Your task to perform on an android device: open app "Chime – Mobile Banking" (install if not already installed), go to login, and select forgot password Image 0: 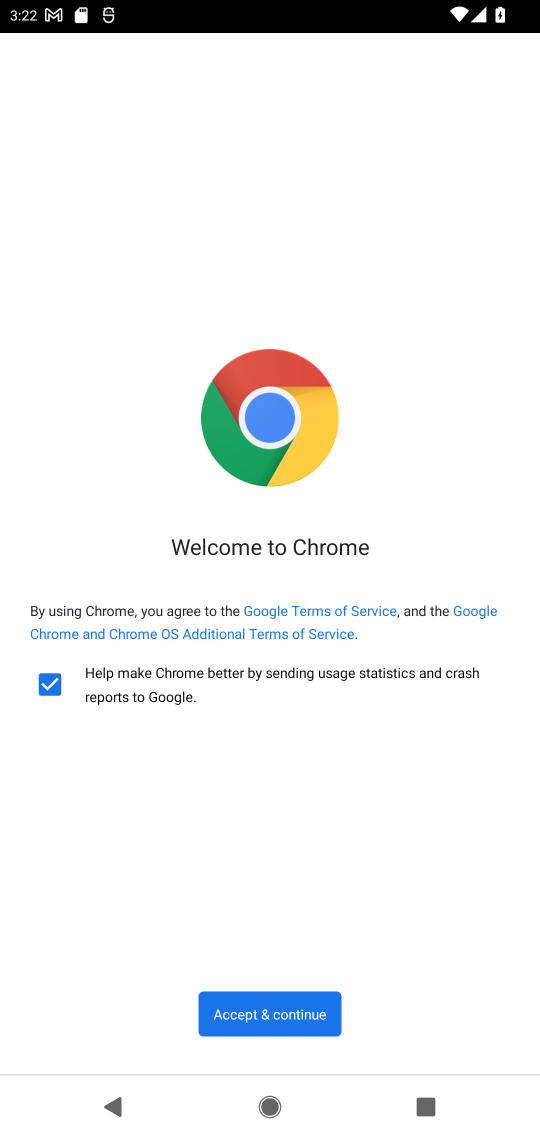
Step 0: press home button
Your task to perform on an android device: open app "Chime – Mobile Banking" (install if not already installed), go to login, and select forgot password Image 1: 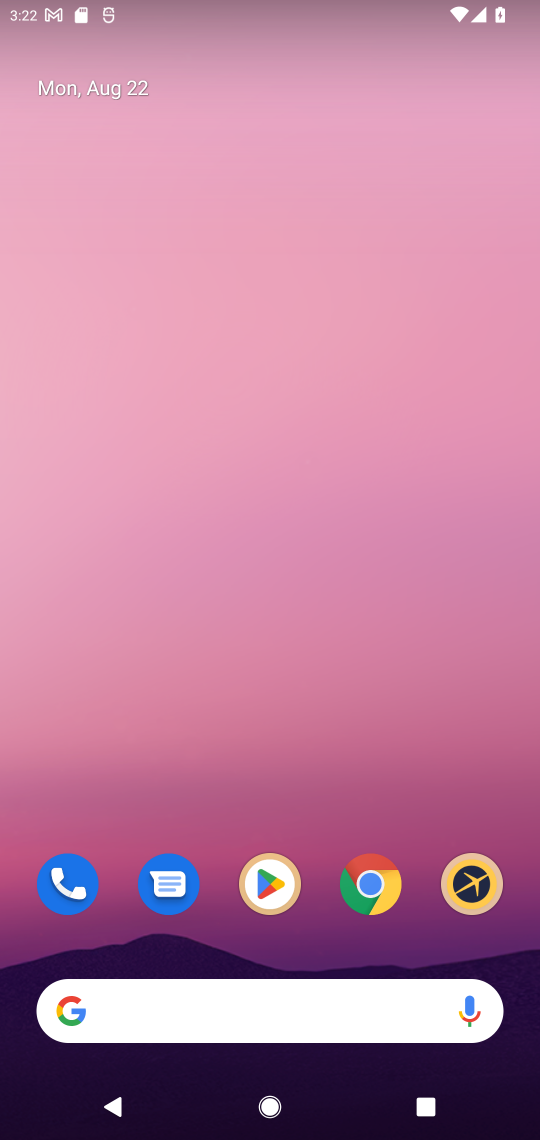
Step 1: click (274, 883)
Your task to perform on an android device: open app "Chime – Mobile Banking" (install if not already installed), go to login, and select forgot password Image 2: 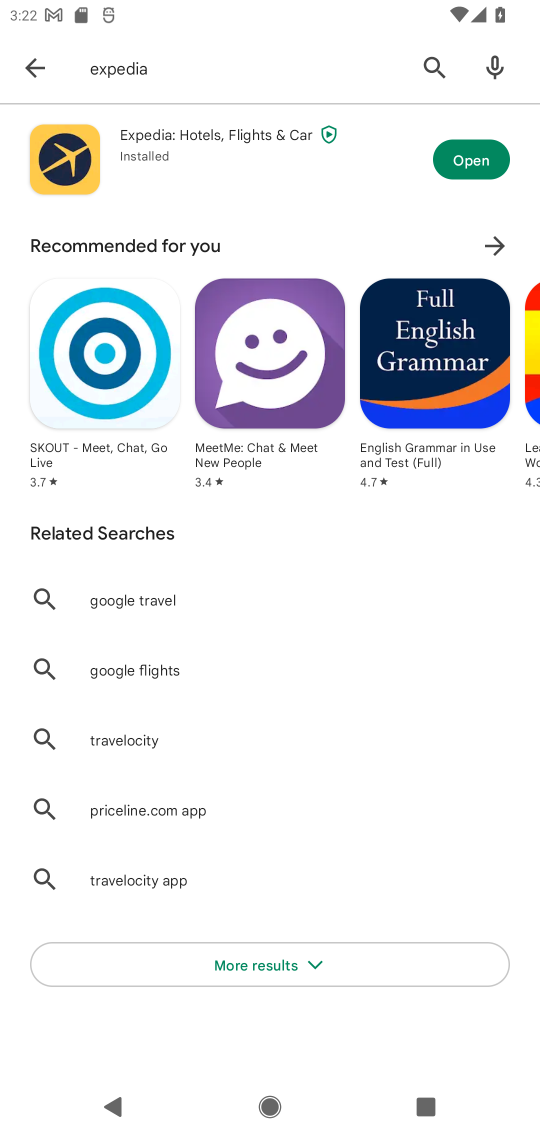
Step 2: click (166, 72)
Your task to perform on an android device: open app "Chime – Mobile Banking" (install if not already installed), go to login, and select forgot password Image 3: 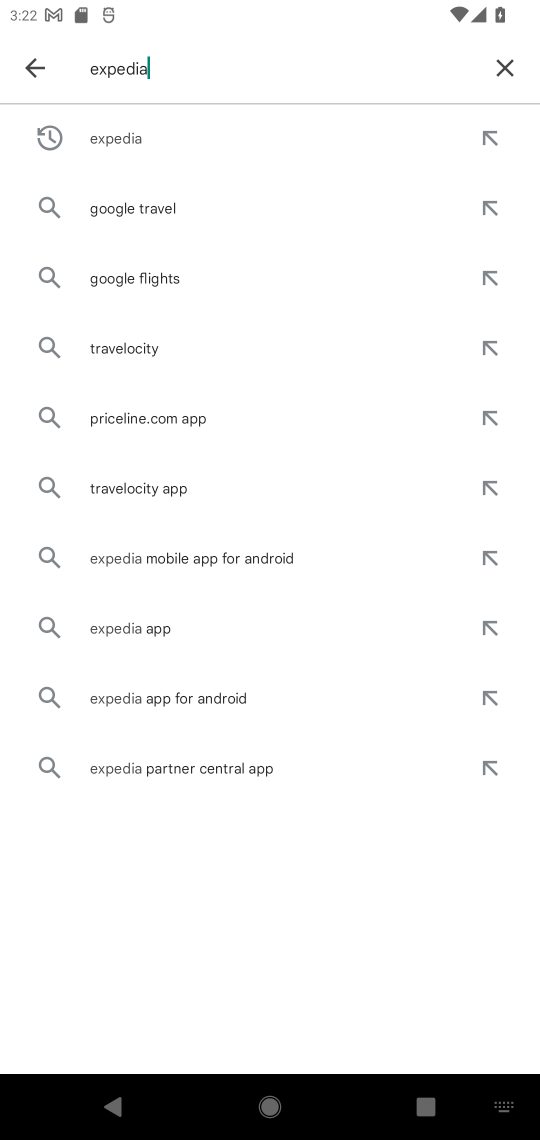
Step 3: click (501, 62)
Your task to perform on an android device: open app "Chime – Mobile Banking" (install if not already installed), go to login, and select forgot password Image 4: 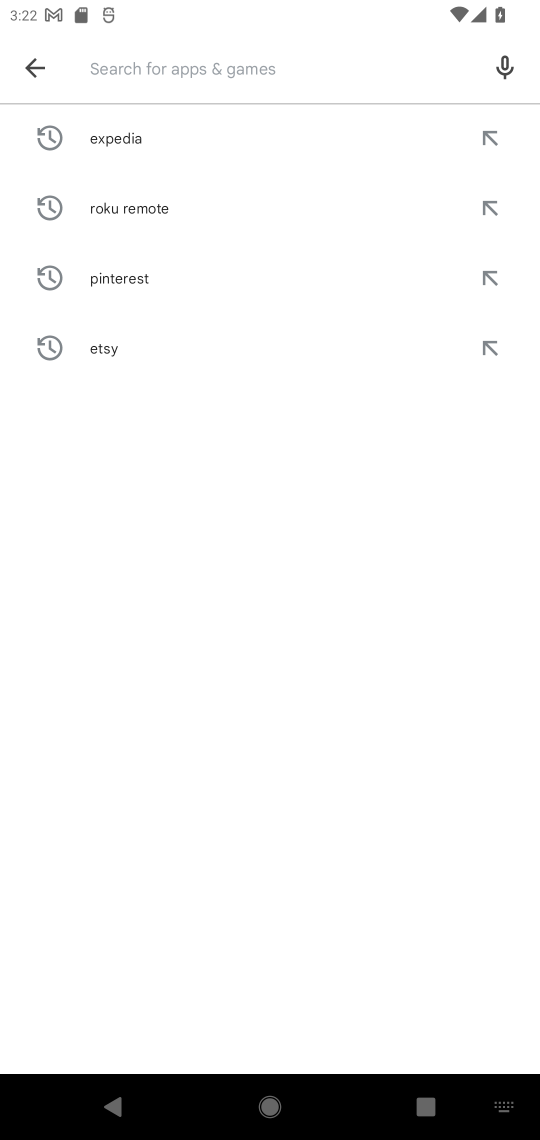
Step 4: type "Chime"
Your task to perform on an android device: open app "Chime – Mobile Banking" (install if not already installed), go to login, and select forgot password Image 5: 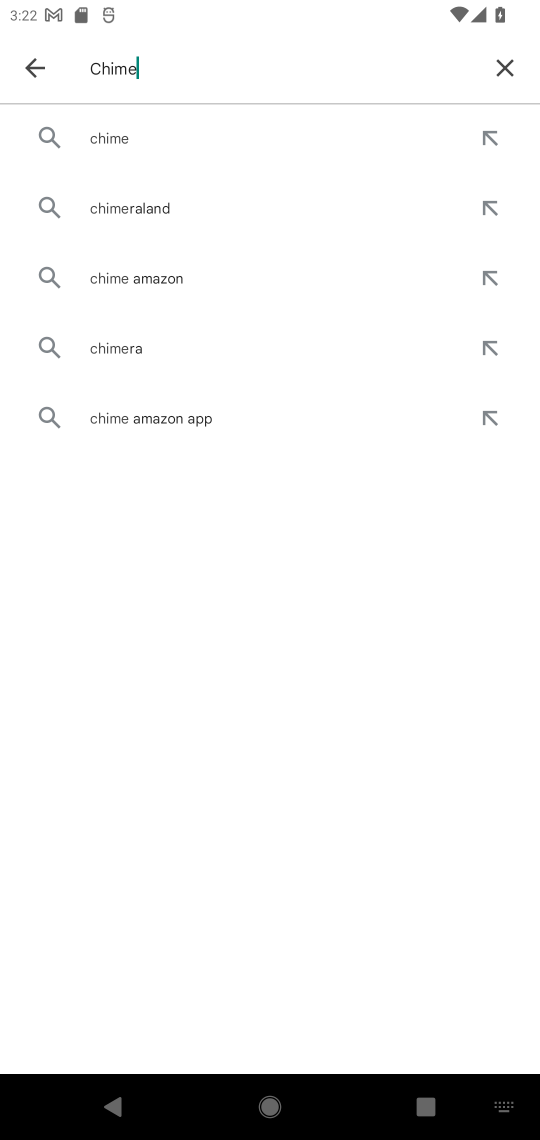
Step 5: click (145, 142)
Your task to perform on an android device: open app "Chime – Mobile Banking" (install if not already installed), go to login, and select forgot password Image 6: 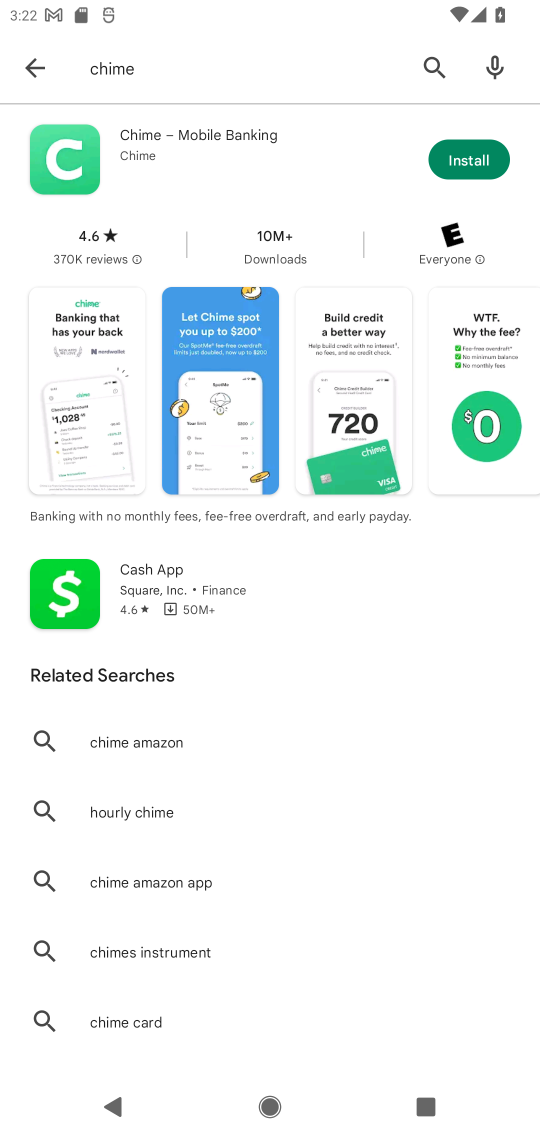
Step 6: click (470, 160)
Your task to perform on an android device: open app "Chime – Mobile Banking" (install if not already installed), go to login, and select forgot password Image 7: 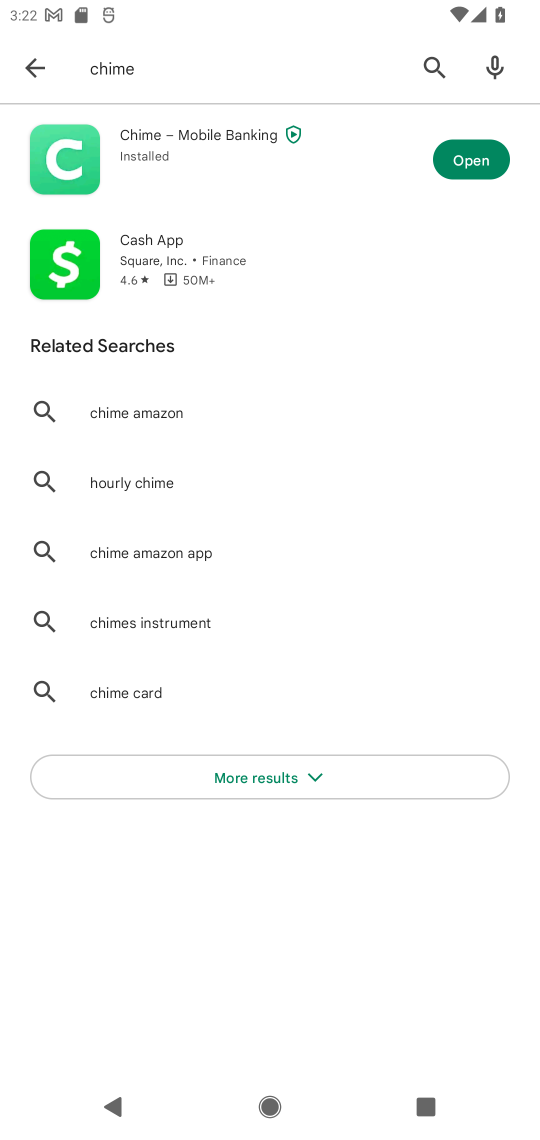
Step 7: click (481, 157)
Your task to perform on an android device: open app "Chime – Mobile Banking" (install if not already installed), go to login, and select forgot password Image 8: 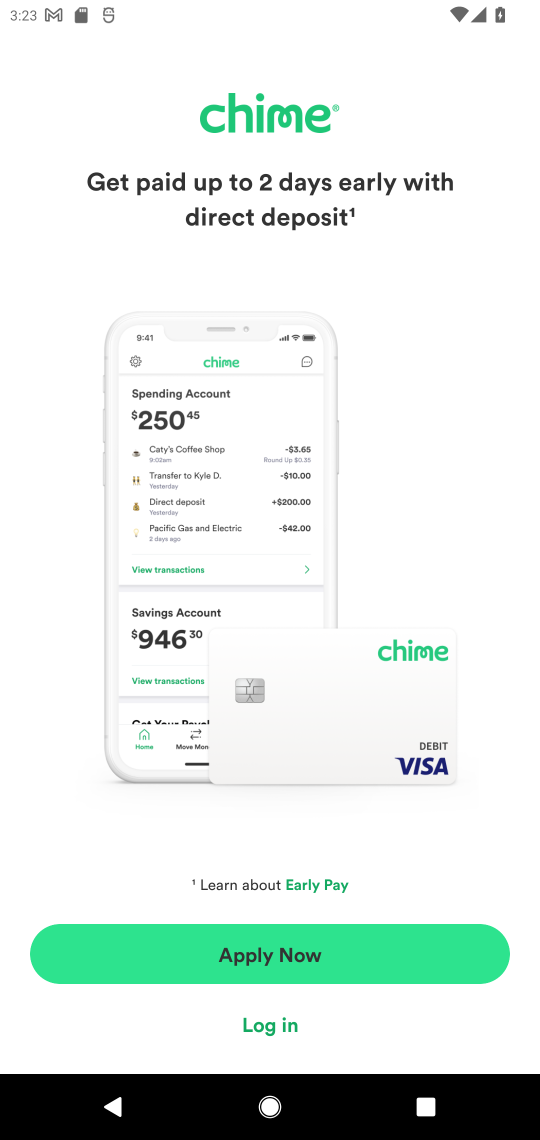
Step 8: click (263, 1009)
Your task to perform on an android device: open app "Chime – Mobile Banking" (install if not already installed), go to login, and select forgot password Image 9: 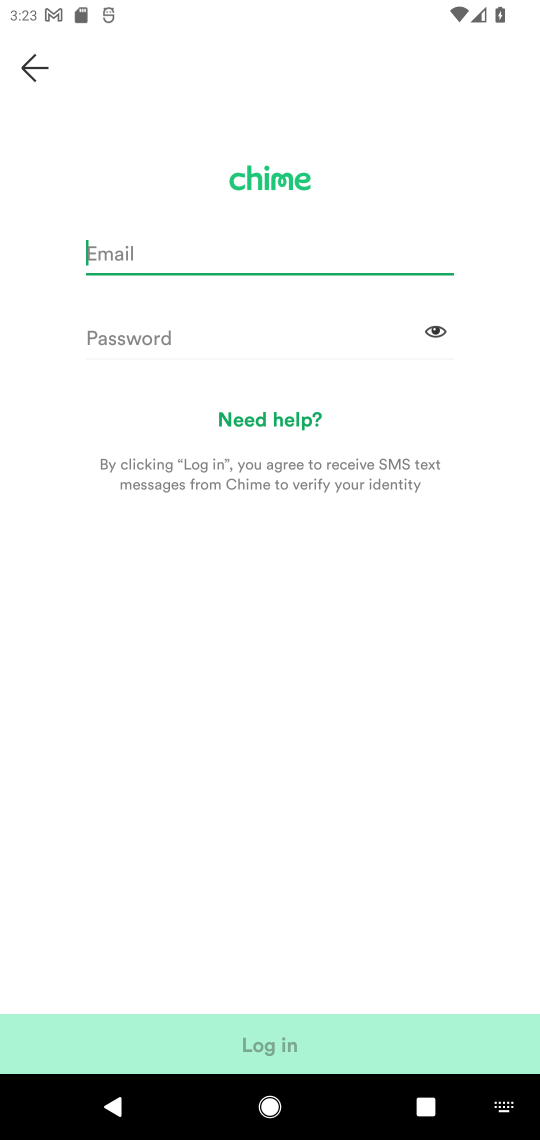
Step 9: click (287, 408)
Your task to perform on an android device: open app "Chime – Mobile Banking" (install if not already installed), go to login, and select forgot password Image 10: 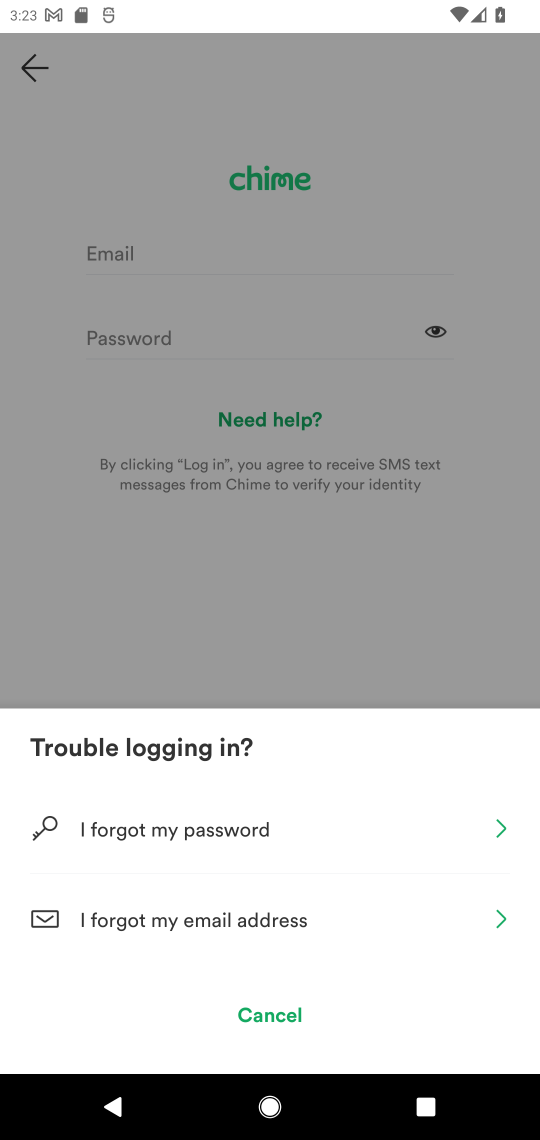
Step 10: click (263, 828)
Your task to perform on an android device: open app "Chime – Mobile Banking" (install if not already installed), go to login, and select forgot password Image 11: 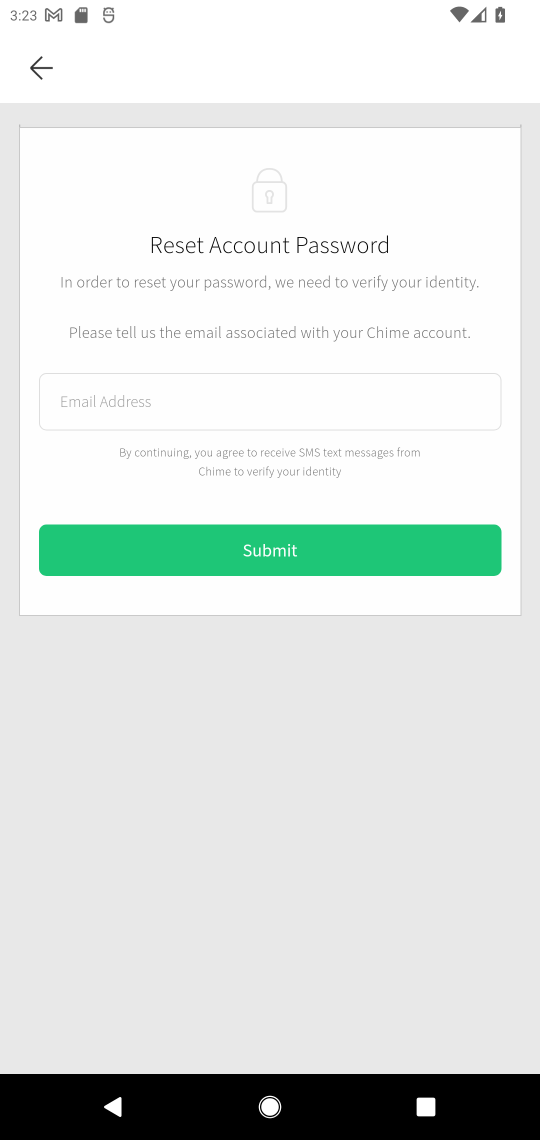
Step 11: task complete